Your task to perform on an android device: Go to calendar. Show me events next week Image 0: 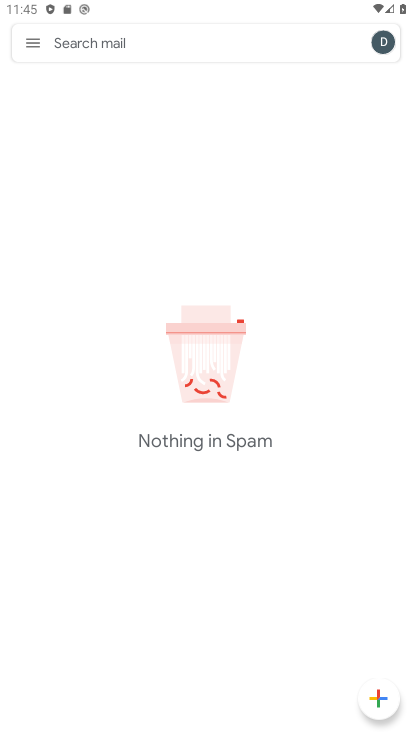
Step 0: press home button
Your task to perform on an android device: Go to calendar. Show me events next week Image 1: 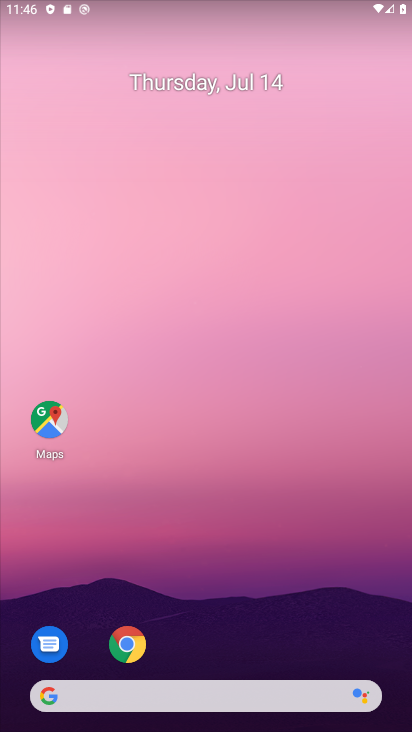
Step 1: drag from (236, 668) to (319, 5)
Your task to perform on an android device: Go to calendar. Show me events next week Image 2: 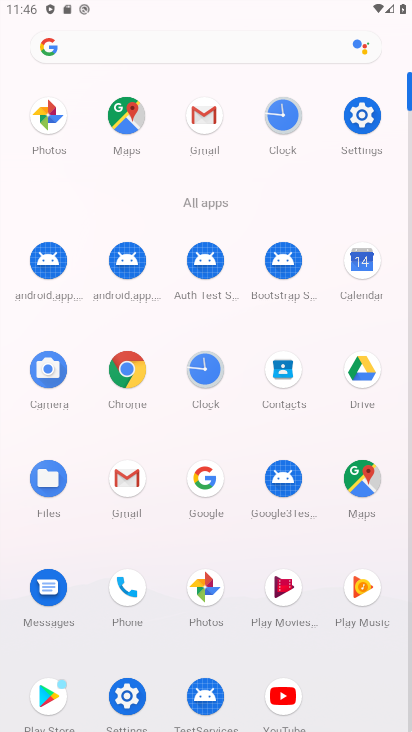
Step 2: click (357, 280)
Your task to perform on an android device: Go to calendar. Show me events next week Image 3: 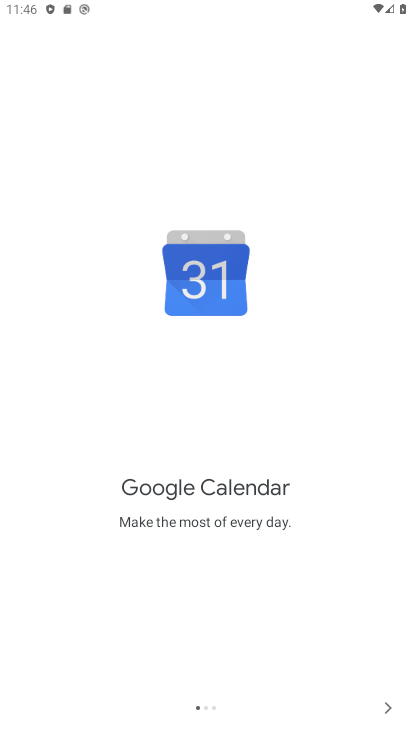
Step 3: click (387, 715)
Your task to perform on an android device: Go to calendar. Show me events next week Image 4: 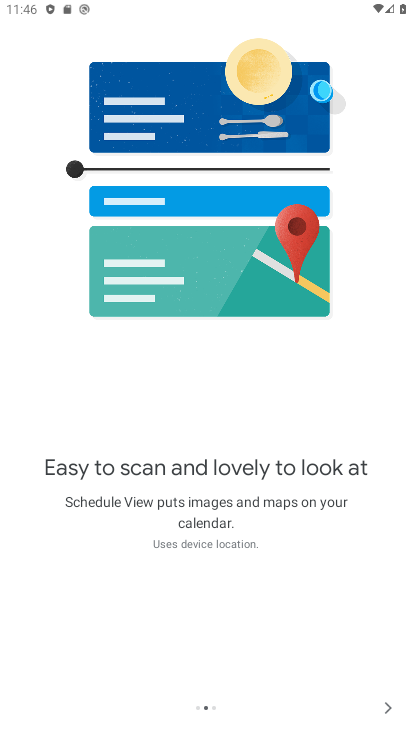
Step 4: click (387, 715)
Your task to perform on an android device: Go to calendar. Show me events next week Image 5: 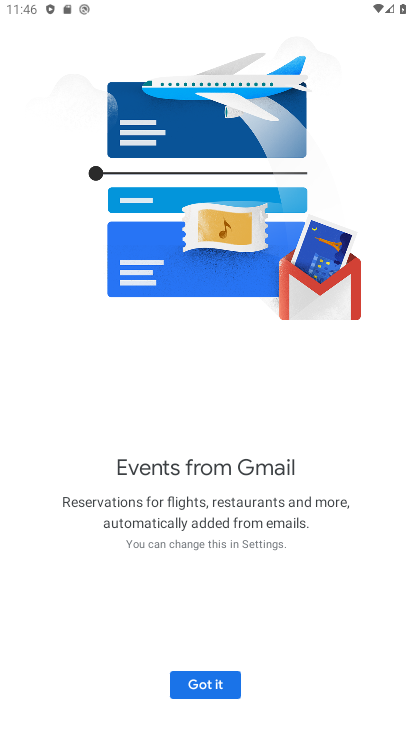
Step 5: click (225, 685)
Your task to perform on an android device: Go to calendar. Show me events next week Image 6: 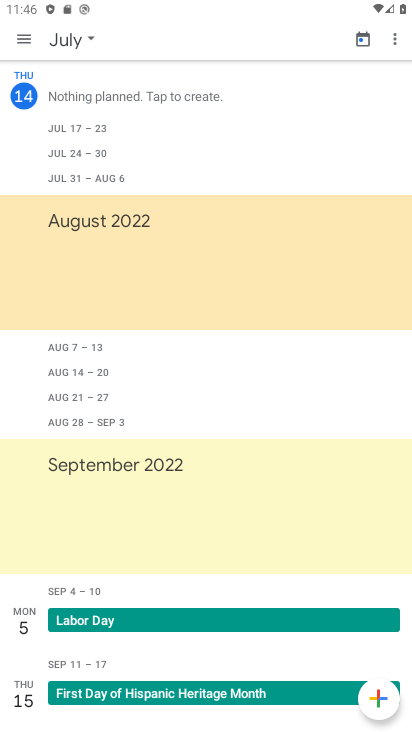
Step 6: click (21, 38)
Your task to perform on an android device: Go to calendar. Show me events next week Image 7: 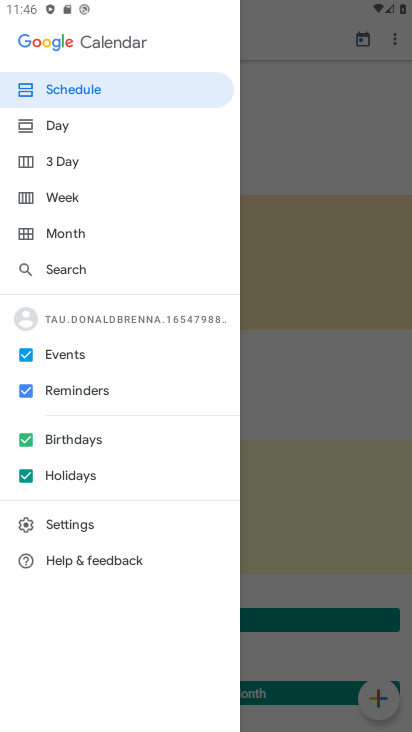
Step 7: click (79, 214)
Your task to perform on an android device: Go to calendar. Show me events next week Image 8: 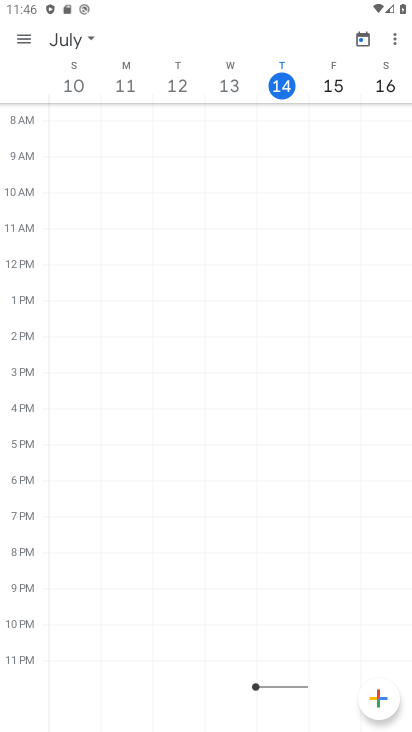
Step 8: task complete